Your task to perform on an android device: change the clock display to digital Image 0: 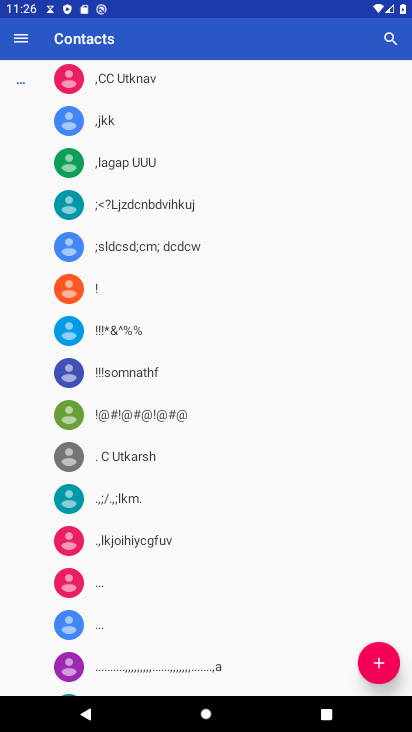
Step 0: press home button
Your task to perform on an android device: change the clock display to digital Image 1: 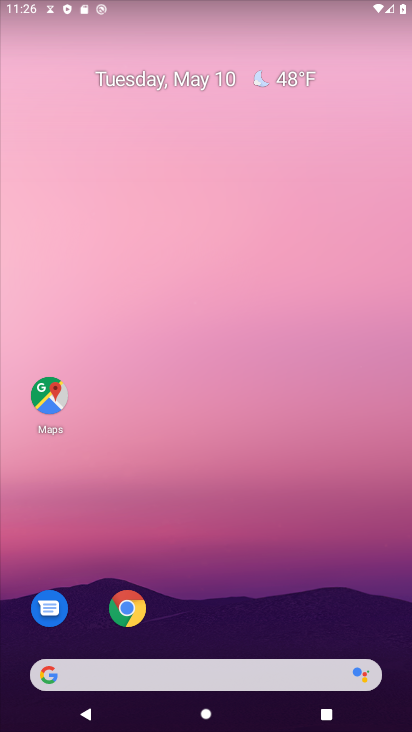
Step 1: drag from (221, 608) to (180, 192)
Your task to perform on an android device: change the clock display to digital Image 2: 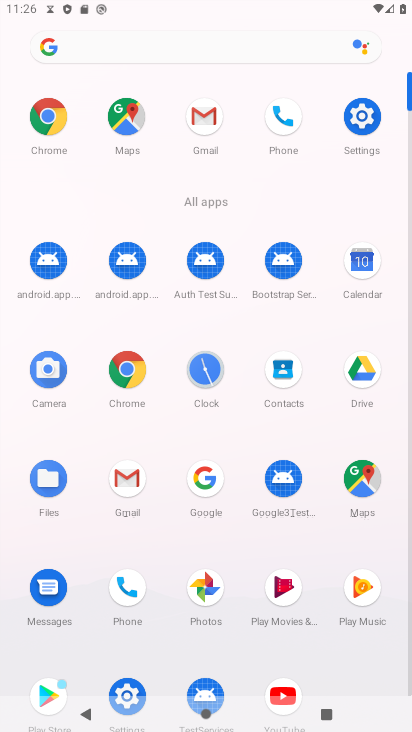
Step 2: click (204, 382)
Your task to perform on an android device: change the clock display to digital Image 3: 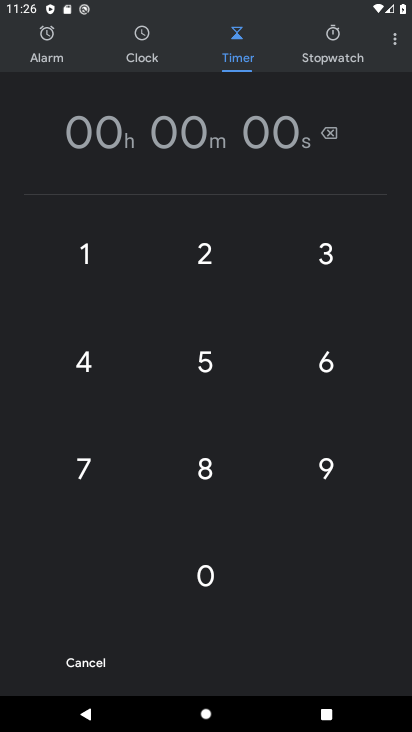
Step 3: click (388, 33)
Your task to perform on an android device: change the clock display to digital Image 4: 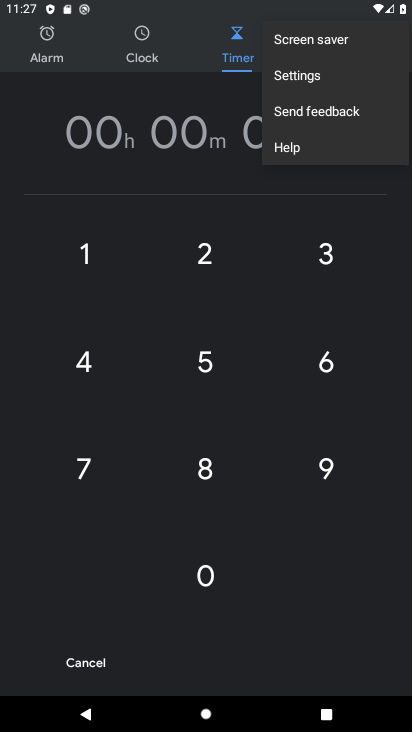
Step 4: click (347, 77)
Your task to perform on an android device: change the clock display to digital Image 5: 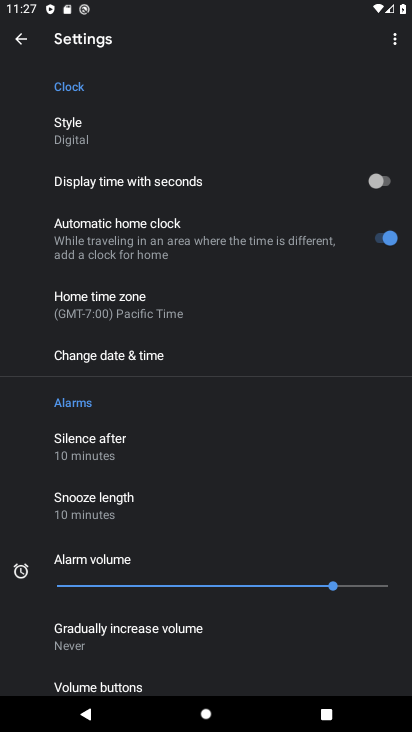
Step 5: click (86, 140)
Your task to perform on an android device: change the clock display to digital Image 6: 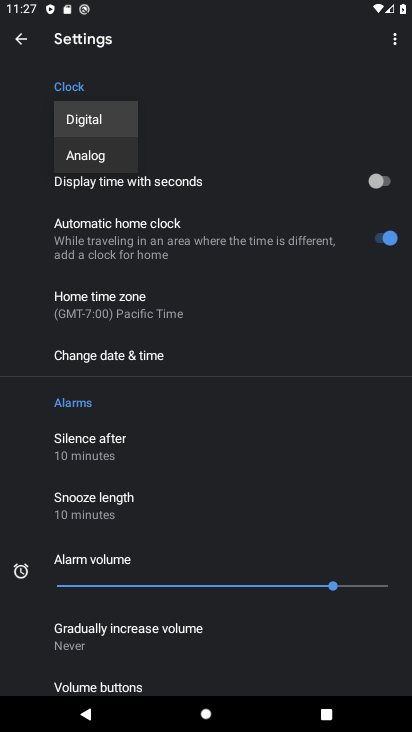
Step 6: task complete